Your task to perform on an android device: Go to Amazon Image 0: 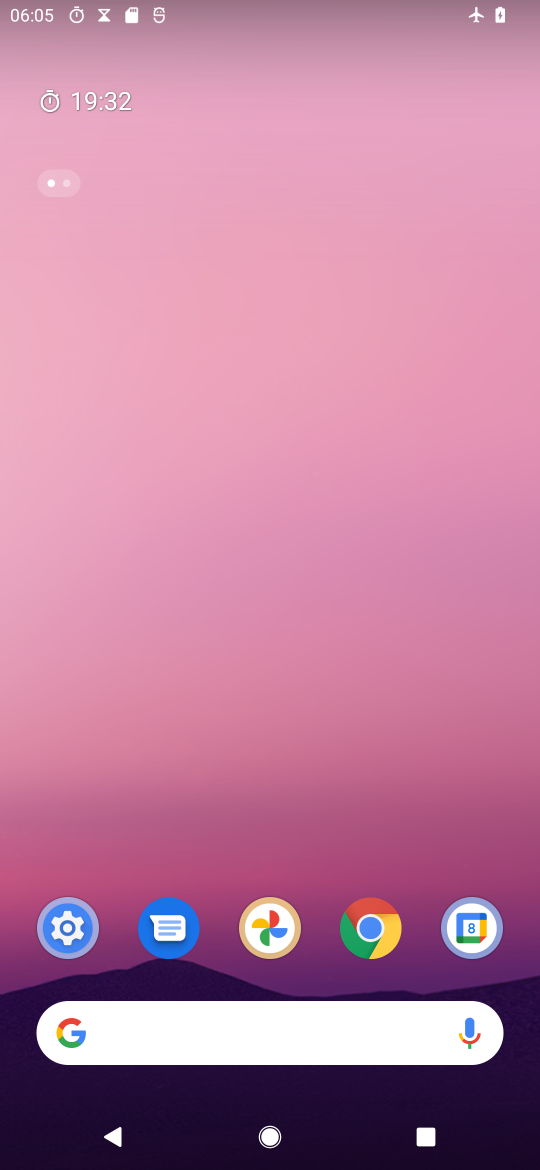
Step 0: click (377, 916)
Your task to perform on an android device: Go to Amazon Image 1: 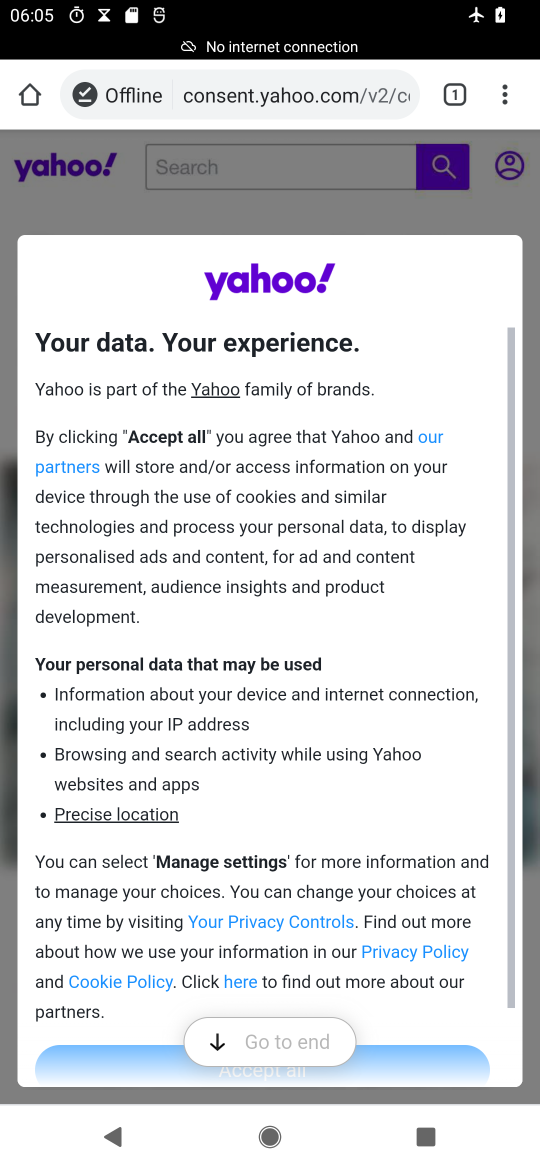
Step 1: click (275, 95)
Your task to perform on an android device: Go to Amazon Image 2: 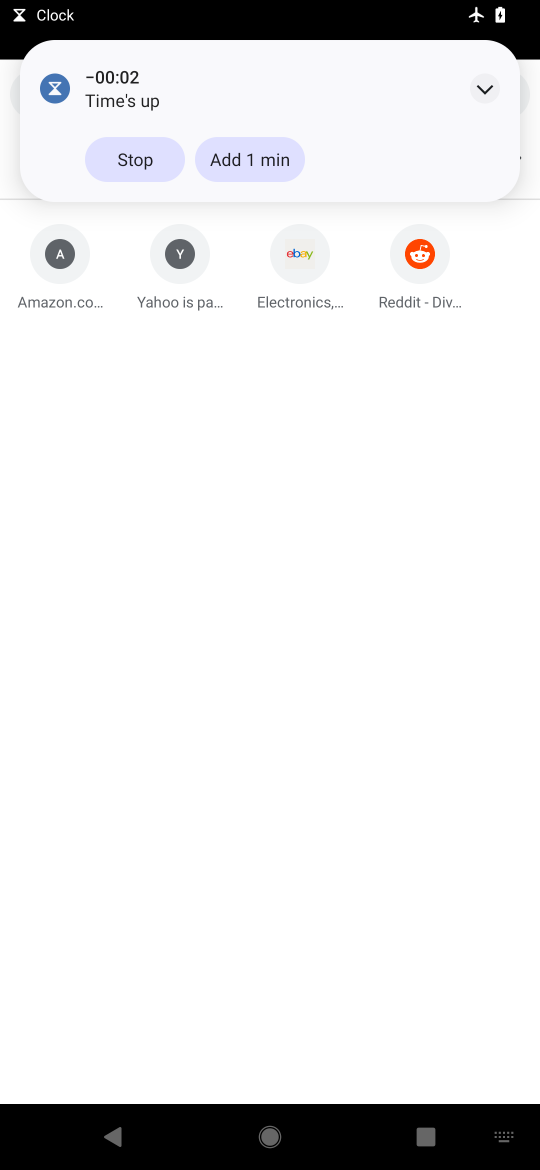
Step 2: type "Amazon"
Your task to perform on an android device: Go to Amazon Image 3: 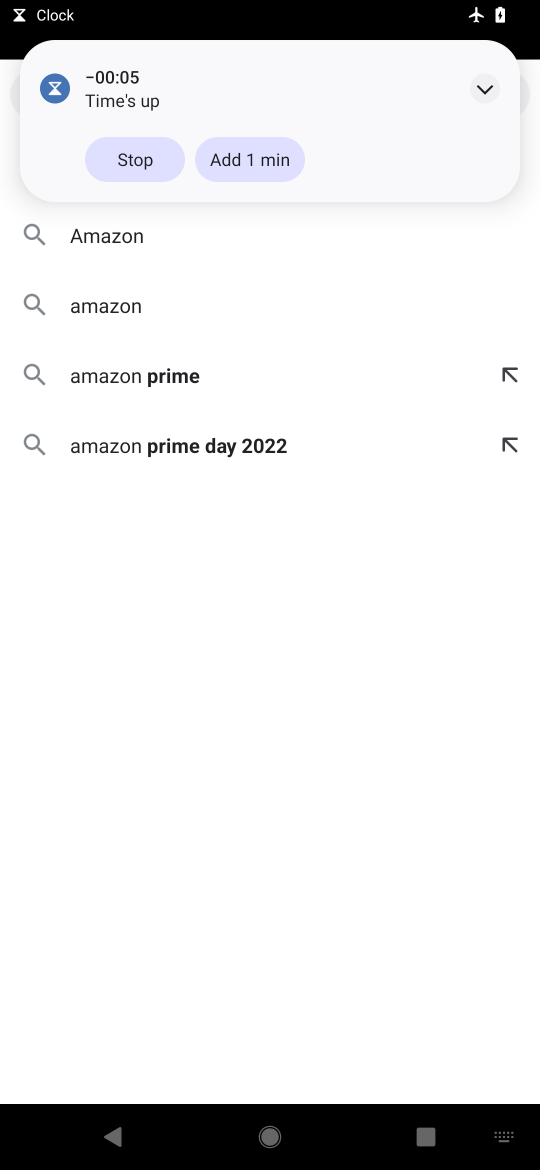
Step 3: click (129, 159)
Your task to perform on an android device: Go to Amazon Image 4: 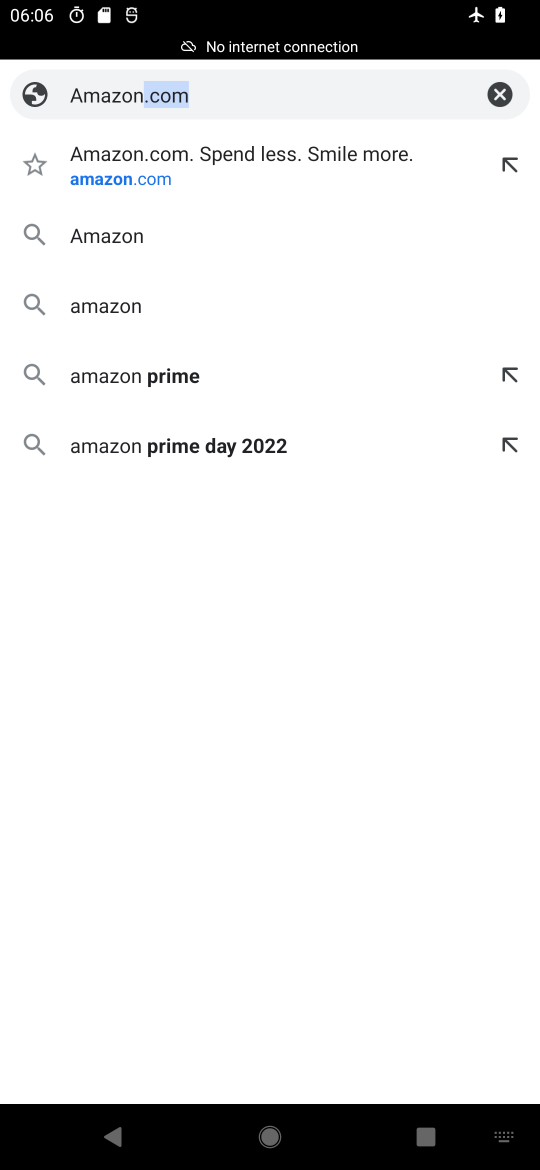
Step 4: click (150, 167)
Your task to perform on an android device: Go to Amazon Image 5: 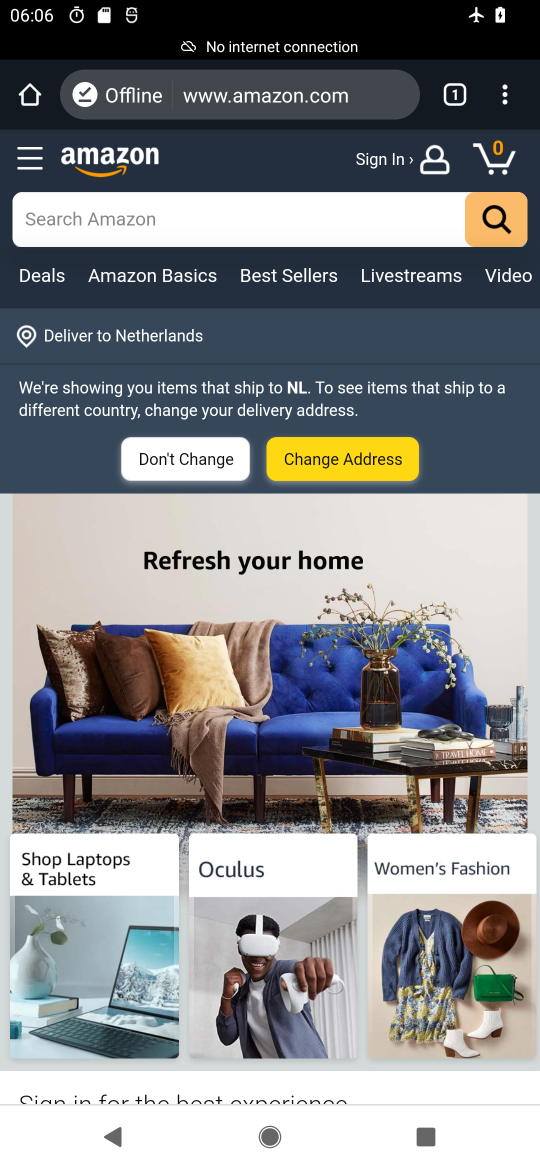
Step 5: task complete